Your task to perform on an android device: turn off notifications in google photos Image 0: 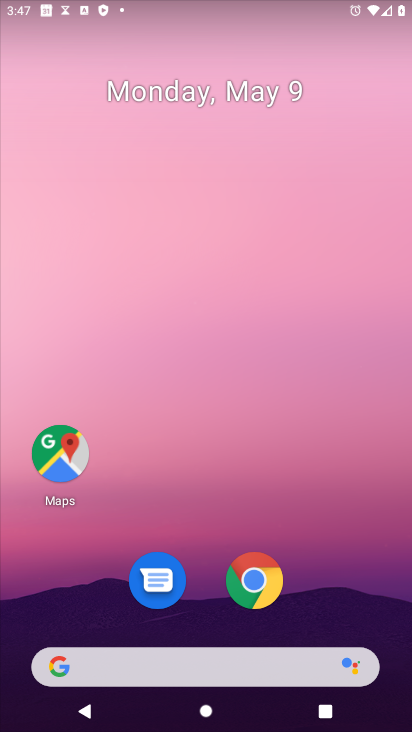
Step 0: drag from (336, 571) to (240, 68)
Your task to perform on an android device: turn off notifications in google photos Image 1: 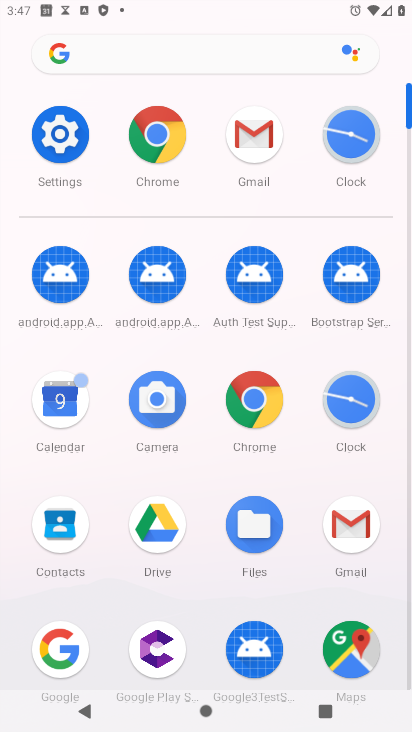
Step 1: drag from (195, 555) to (231, 211)
Your task to perform on an android device: turn off notifications in google photos Image 2: 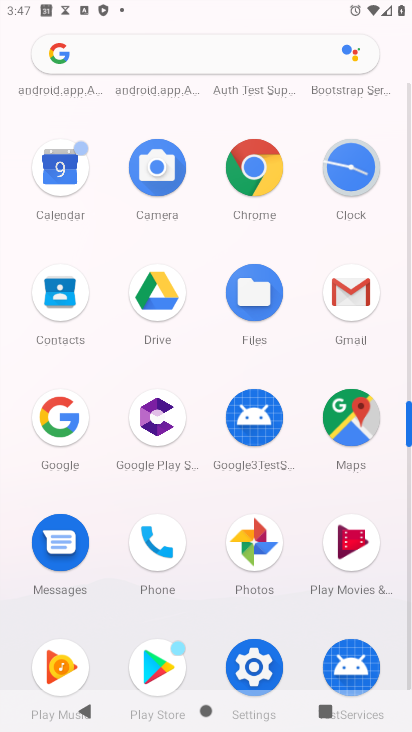
Step 2: click (252, 539)
Your task to perform on an android device: turn off notifications in google photos Image 3: 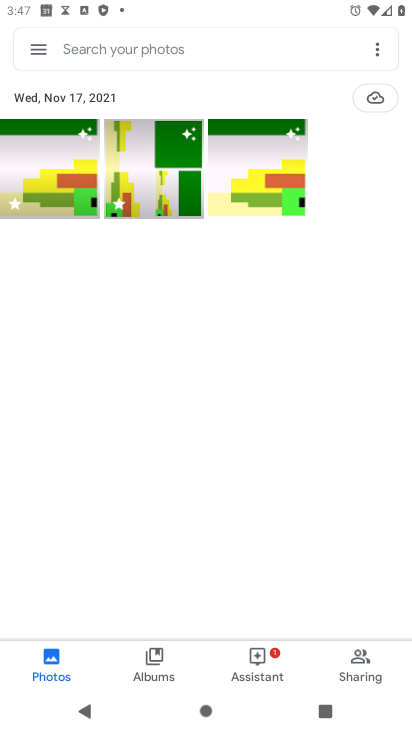
Step 3: click (39, 48)
Your task to perform on an android device: turn off notifications in google photos Image 4: 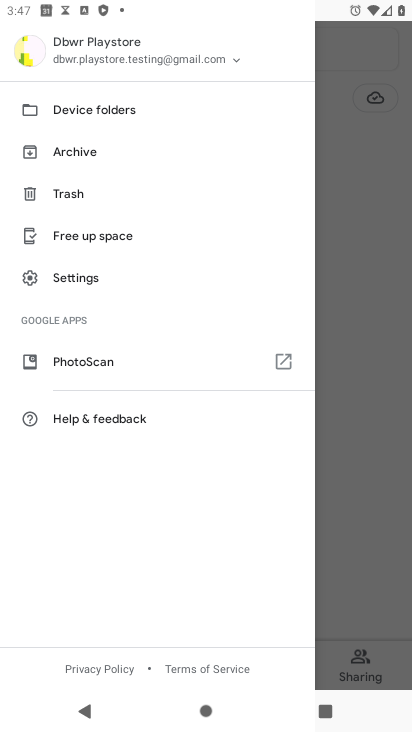
Step 4: click (96, 283)
Your task to perform on an android device: turn off notifications in google photos Image 5: 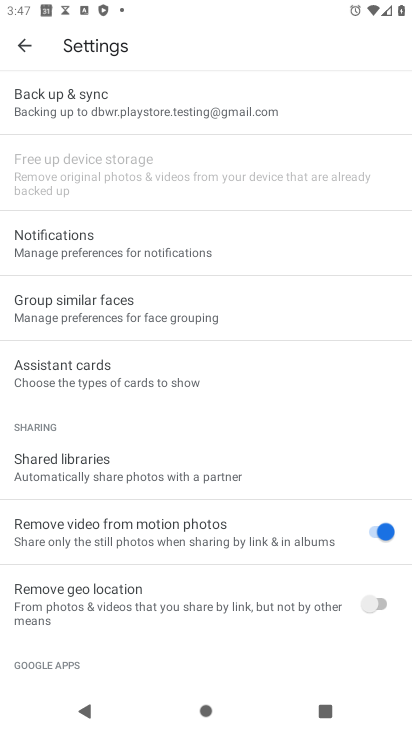
Step 5: click (103, 240)
Your task to perform on an android device: turn off notifications in google photos Image 6: 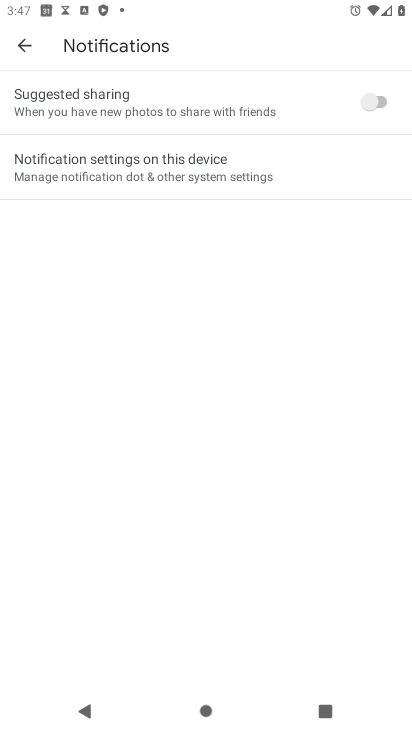
Step 6: task complete